Your task to perform on an android device: Is it going to rain tomorrow? Image 0: 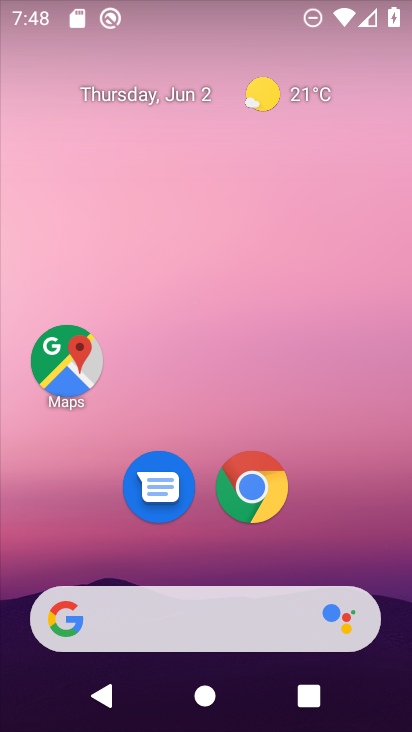
Step 0: click (250, 489)
Your task to perform on an android device: Is it going to rain tomorrow? Image 1: 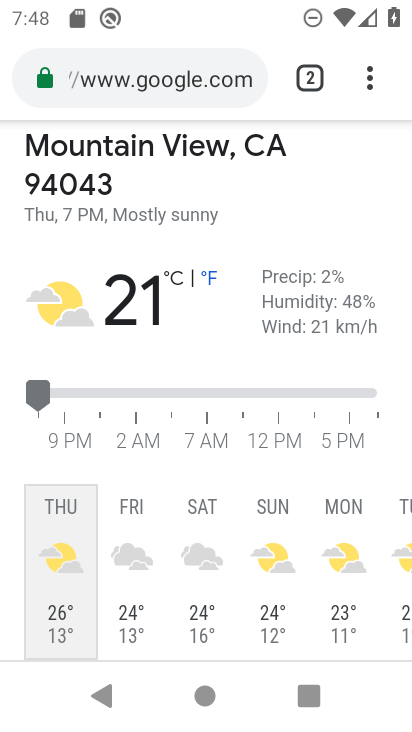
Step 1: click (93, 66)
Your task to perform on an android device: Is it going to rain tomorrow? Image 2: 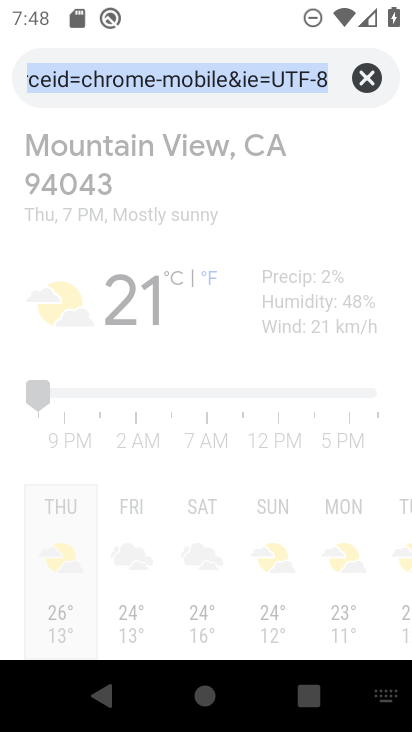
Step 2: type "Is it going to rain tomorrow?"
Your task to perform on an android device: Is it going to rain tomorrow? Image 3: 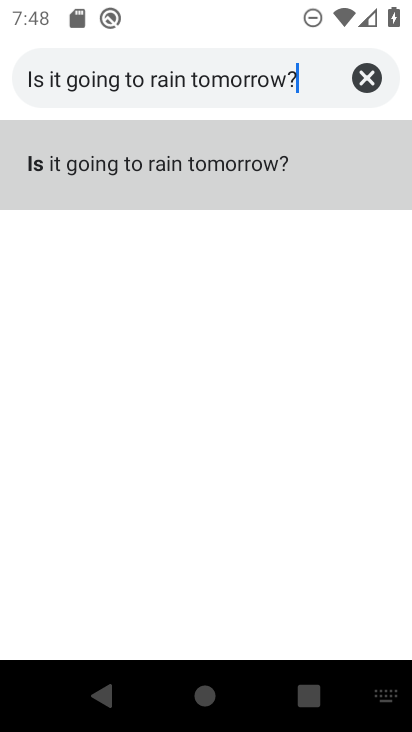
Step 3: click (180, 197)
Your task to perform on an android device: Is it going to rain tomorrow? Image 4: 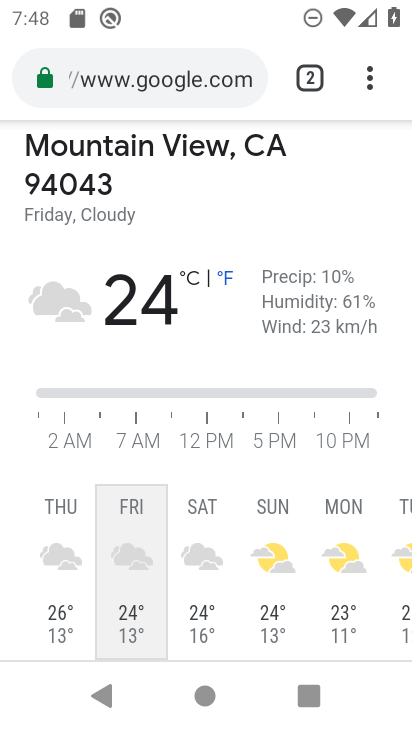
Step 4: task complete